Your task to perform on an android device: Open the map Image 0: 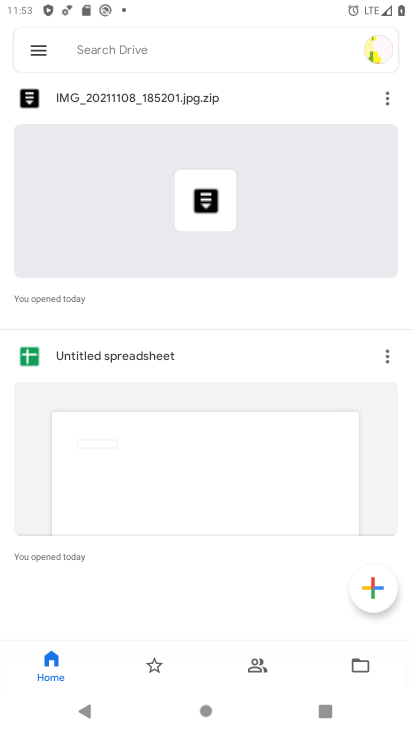
Step 0: press home button
Your task to perform on an android device: Open the map Image 1: 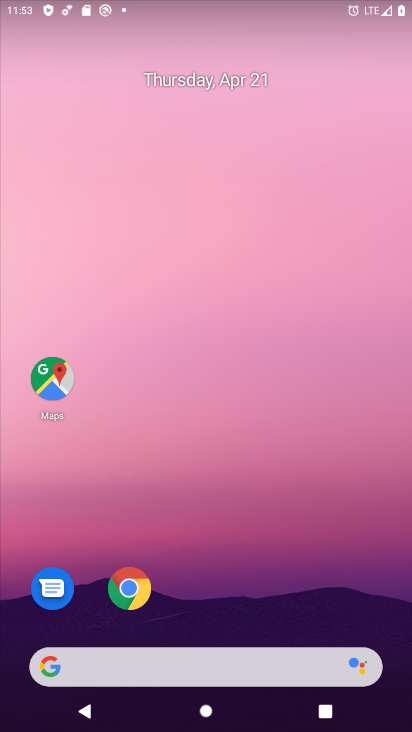
Step 1: click (205, 261)
Your task to perform on an android device: Open the map Image 2: 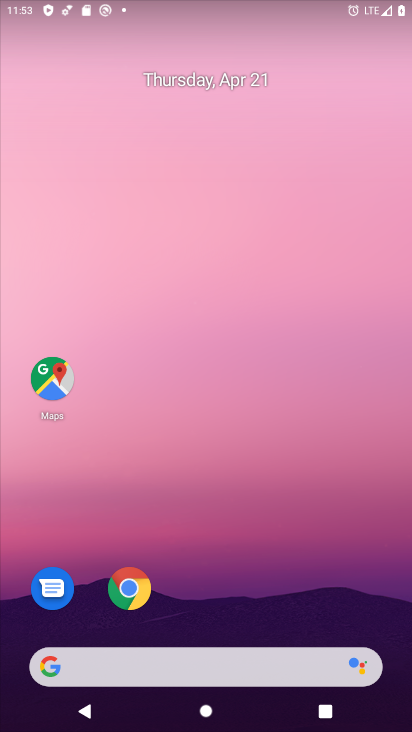
Step 2: drag from (280, 681) to (273, 290)
Your task to perform on an android device: Open the map Image 3: 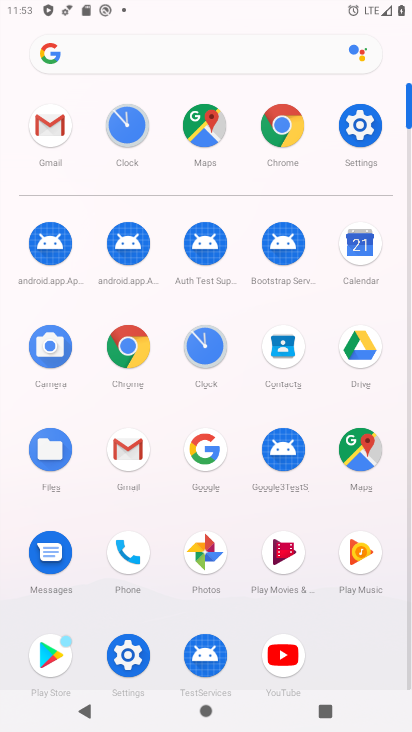
Step 3: click (219, 139)
Your task to perform on an android device: Open the map Image 4: 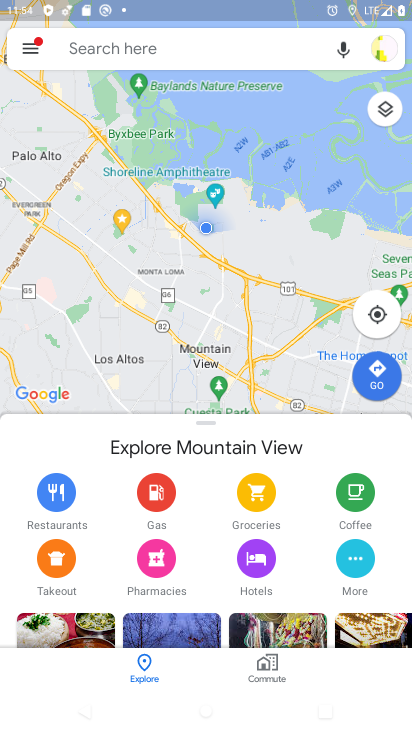
Step 4: click (200, 61)
Your task to perform on an android device: Open the map Image 5: 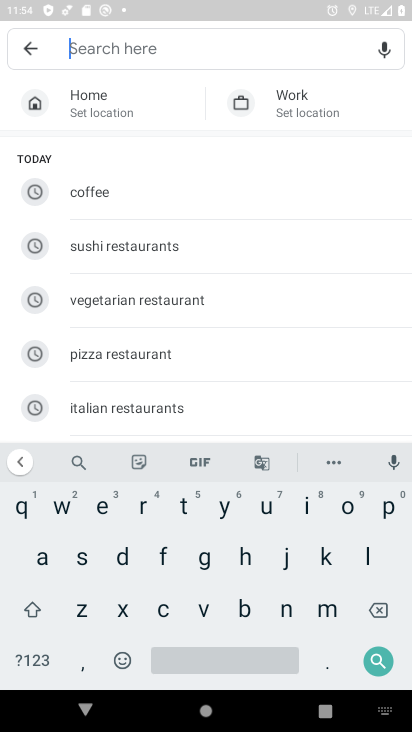
Step 5: click (36, 57)
Your task to perform on an android device: Open the map Image 6: 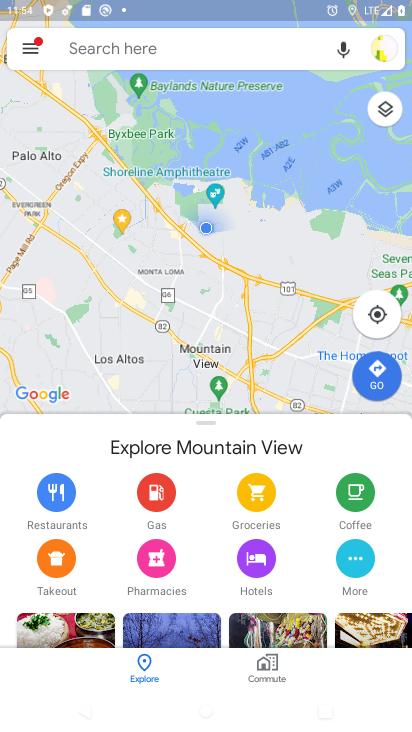
Step 6: click (234, 283)
Your task to perform on an android device: Open the map Image 7: 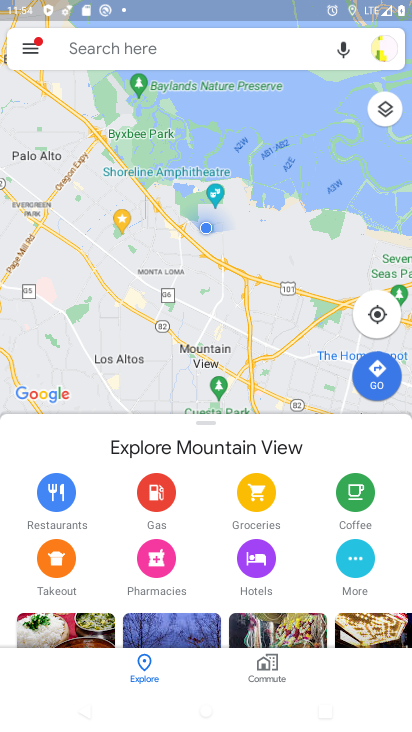
Step 7: task complete